Your task to perform on an android device: Do I have any events today? Image 0: 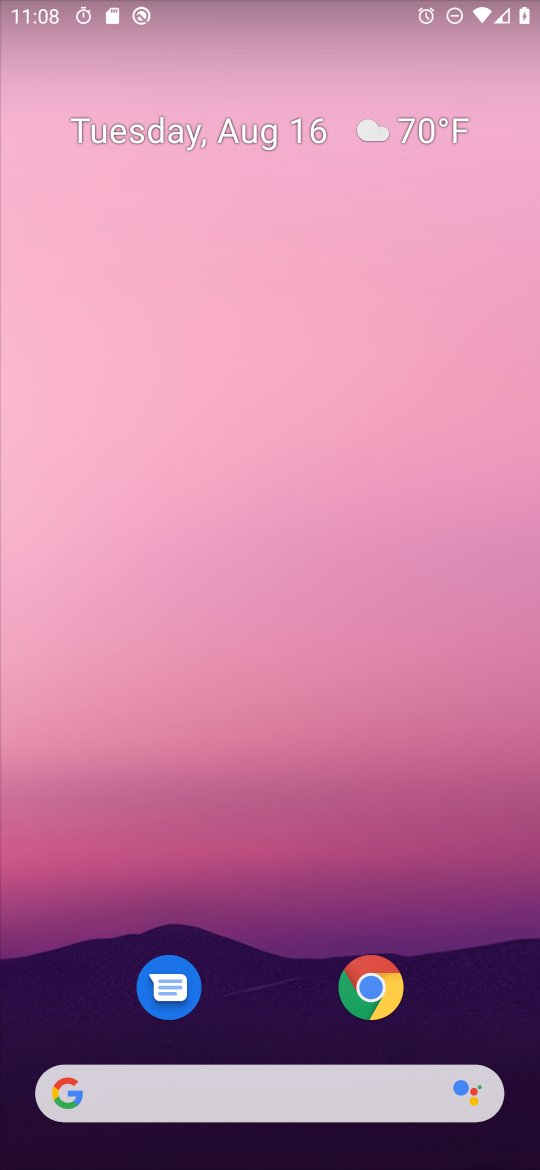
Step 0: drag from (26, 1123) to (305, 624)
Your task to perform on an android device: Do I have any events today? Image 1: 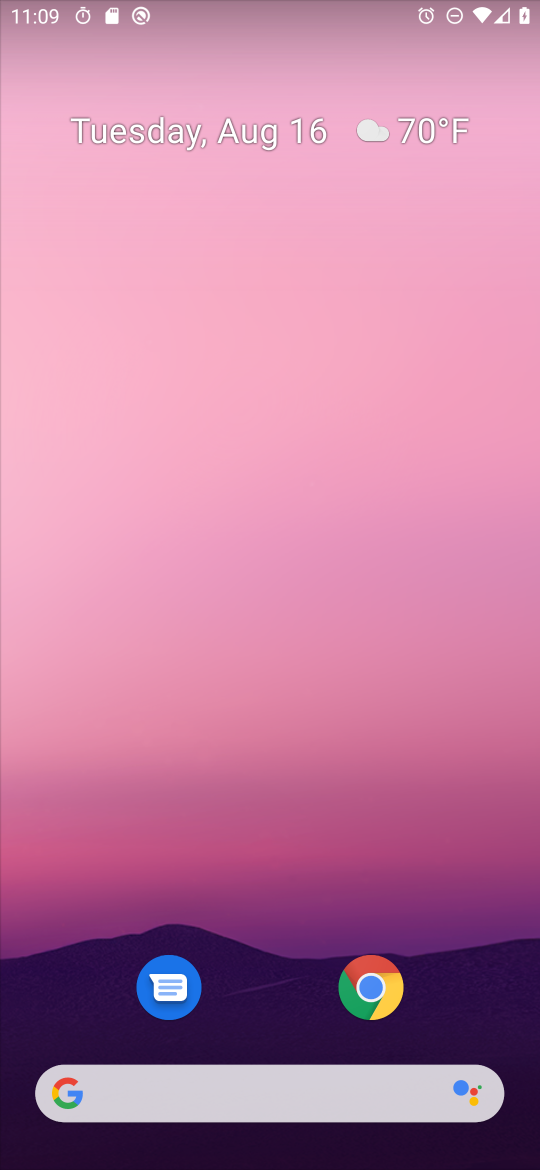
Step 1: drag from (0, 1127) to (261, 661)
Your task to perform on an android device: Do I have any events today? Image 2: 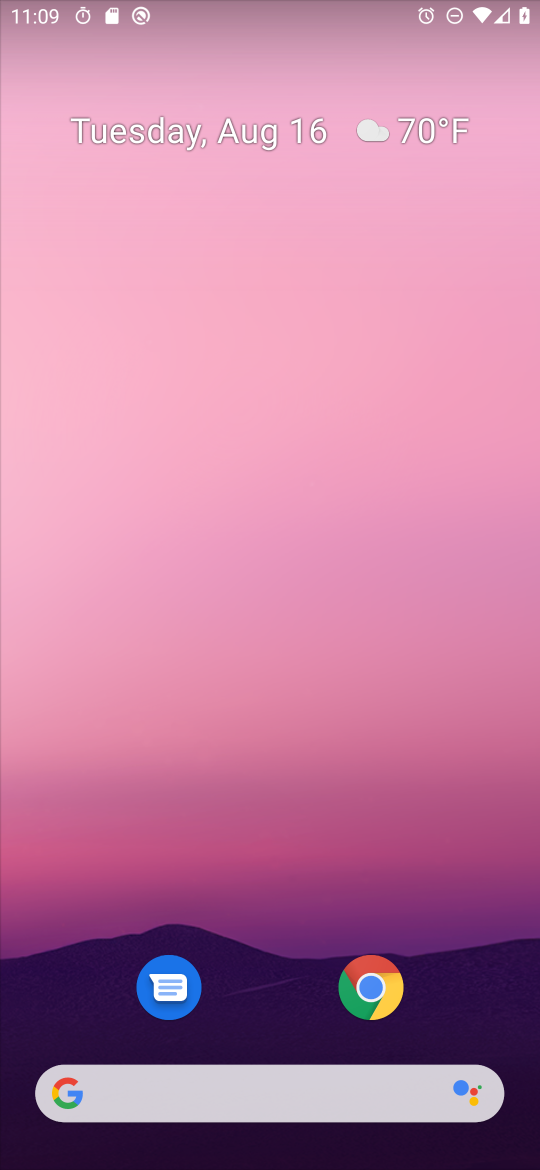
Step 2: drag from (23, 1133) to (369, 579)
Your task to perform on an android device: Do I have any events today? Image 3: 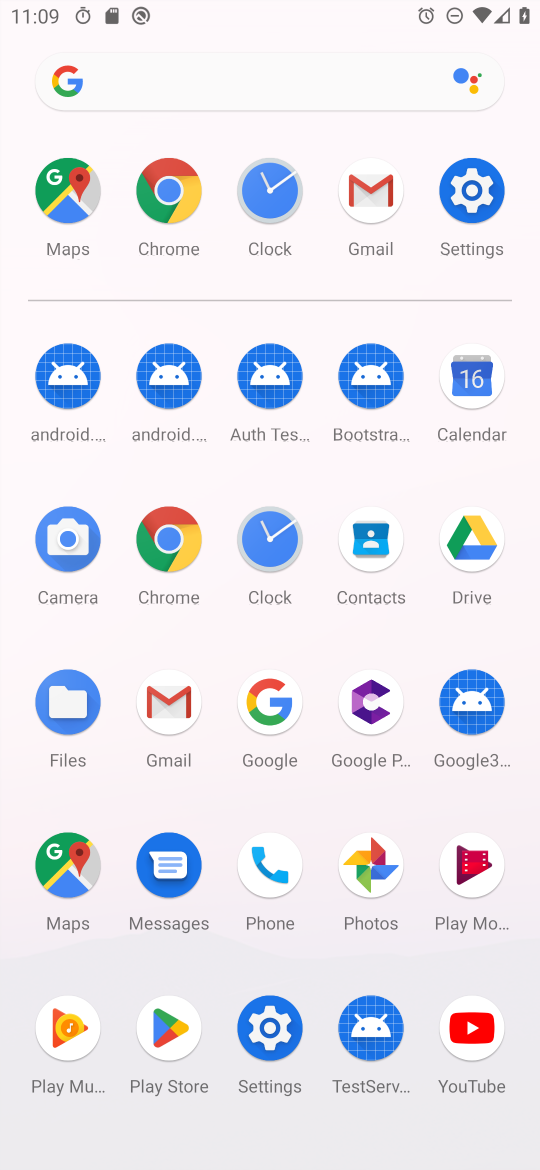
Step 3: click (463, 362)
Your task to perform on an android device: Do I have any events today? Image 4: 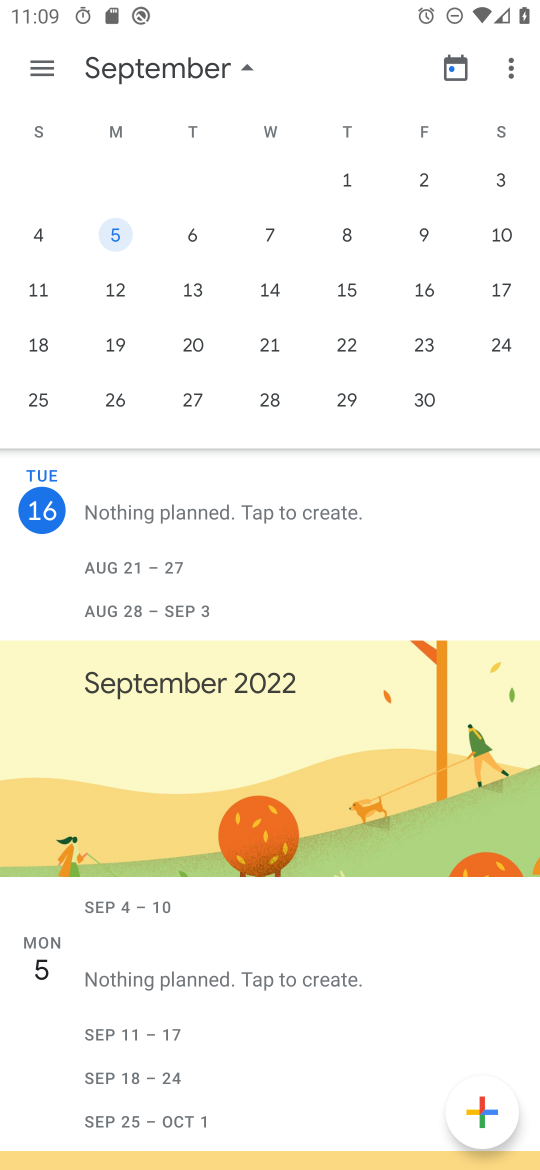
Step 4: drag from (20, 181) to (533, 371)
Your task to perform on an android device: Do I have any events today? Image 5: 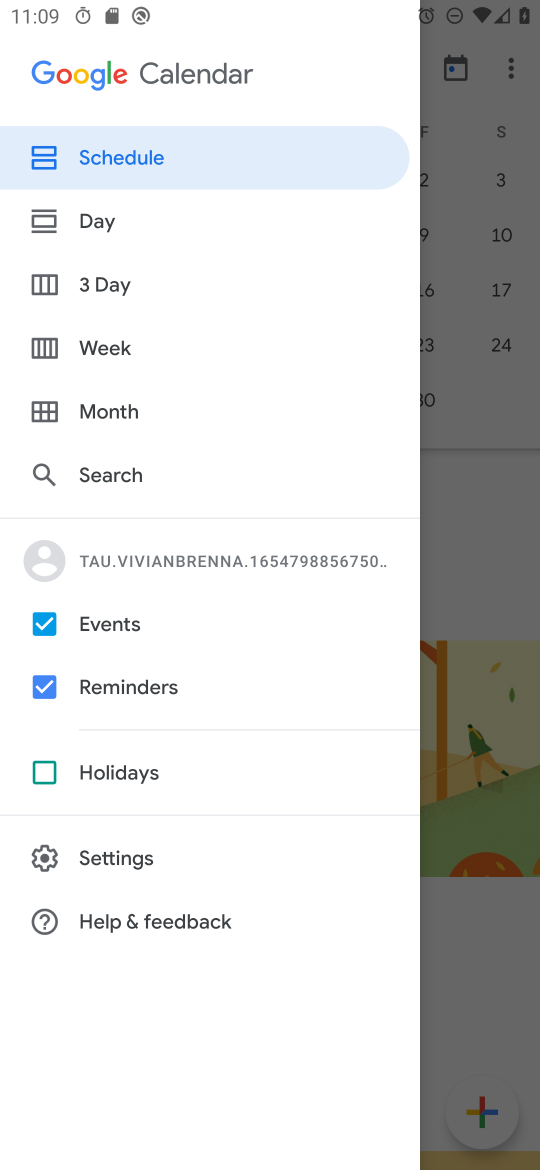
Step 5: click (441, 487)
Your task to perform on an android device: Do I have any events today? Image 6: 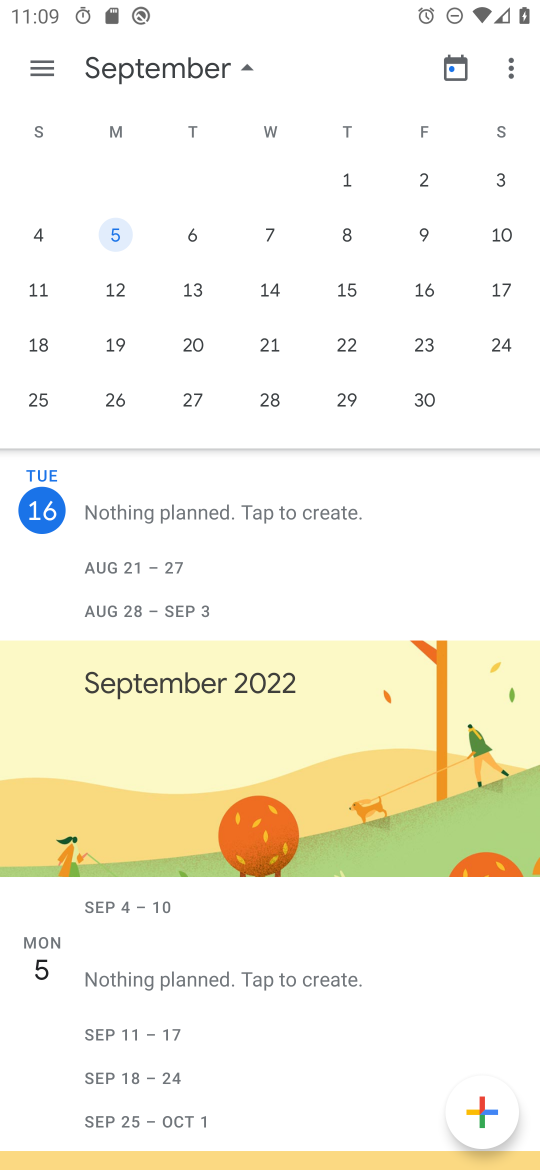
Step 6: click (441, 487)
Your task to perform on an android device: Do I have any events today? Image 7: 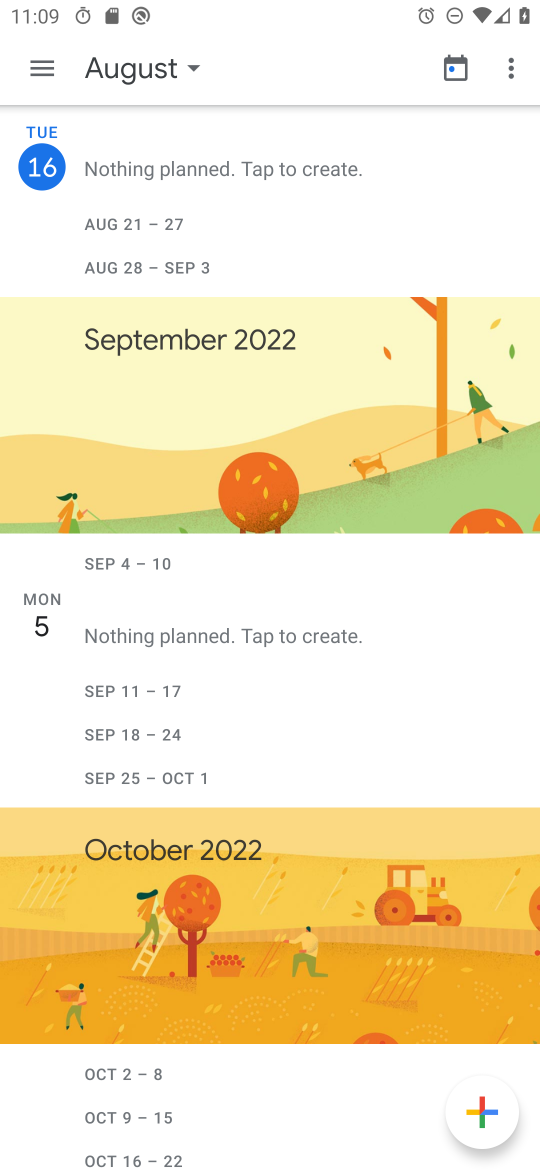
Step 7: click (189, 69)
Your task to perform on an android device: Do I have any events today? Image 8: 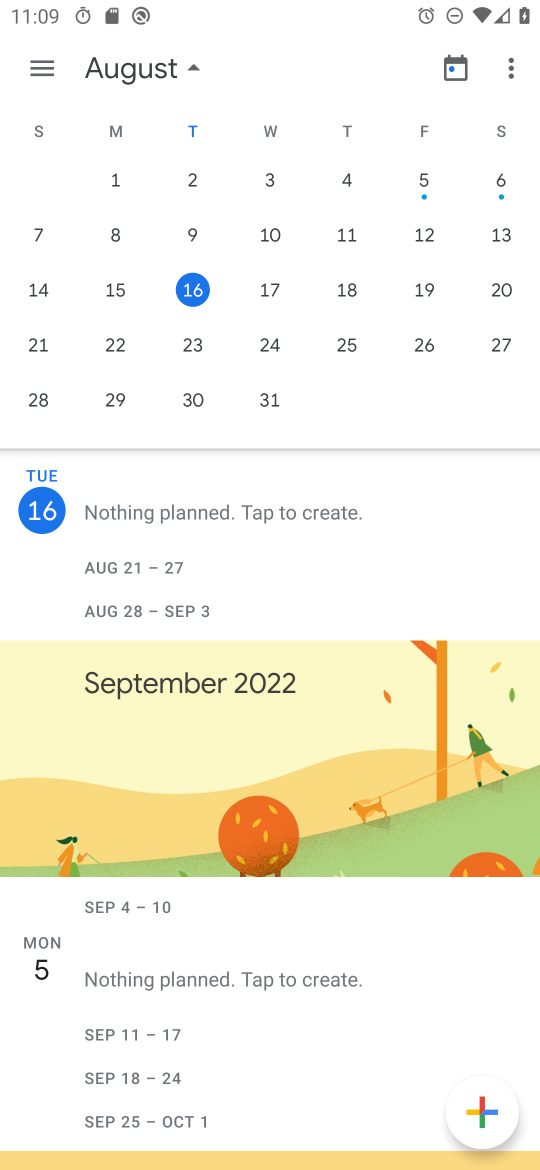
Step 8: task complete